Your task to perform on an android device: Open privacy settings Image 0: 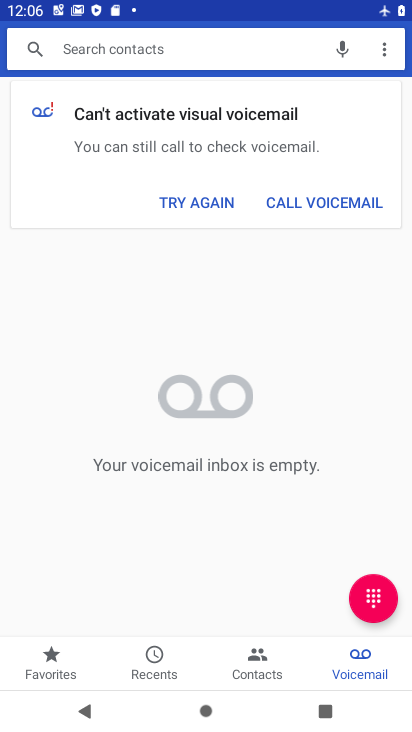
Step 0: press home button
Your task to perform on an android device: Open privacy settings Image 1: 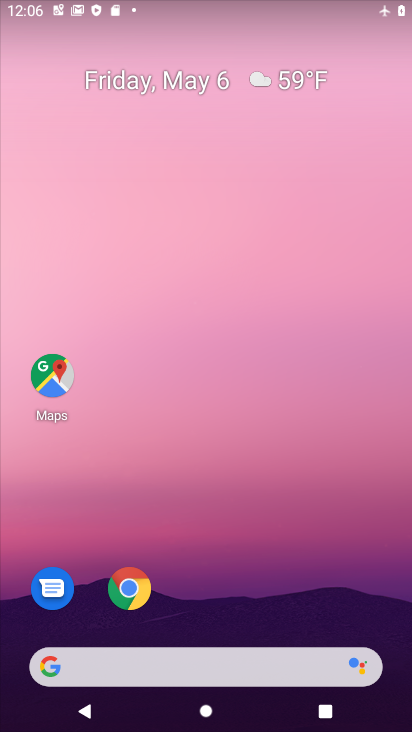
Step 1: drag from (187, 673) to (322, 145)
Your task to perform on an android device: Open privacy settings Image 2: 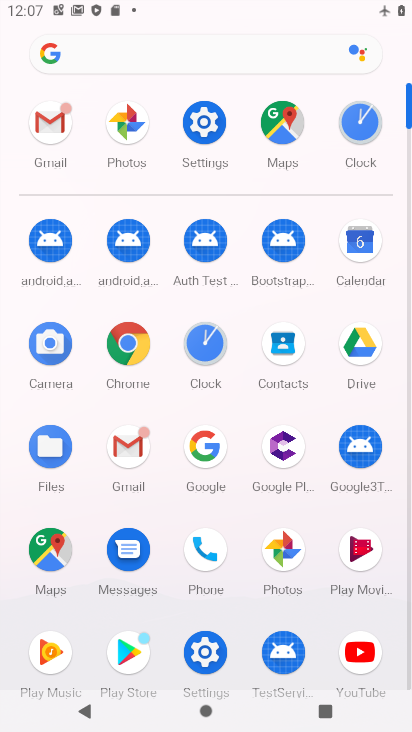
Step 2: click (205, 123)
Your task to perform on an android device: Open privacy settings Image 3: 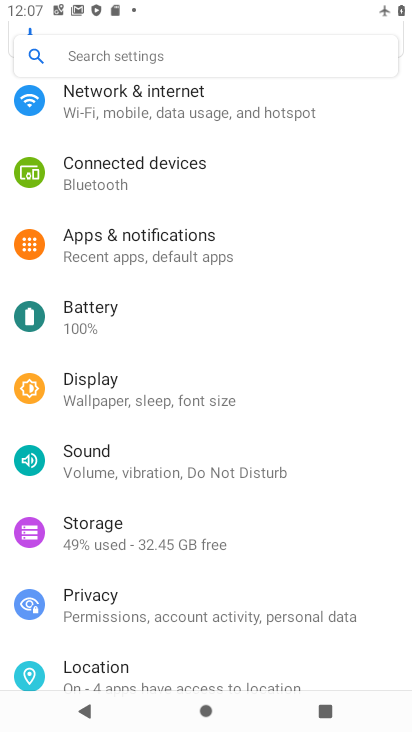
Step 3: click (117, 615)
Your task to perform on an android device: Open privacy settings Image 4: 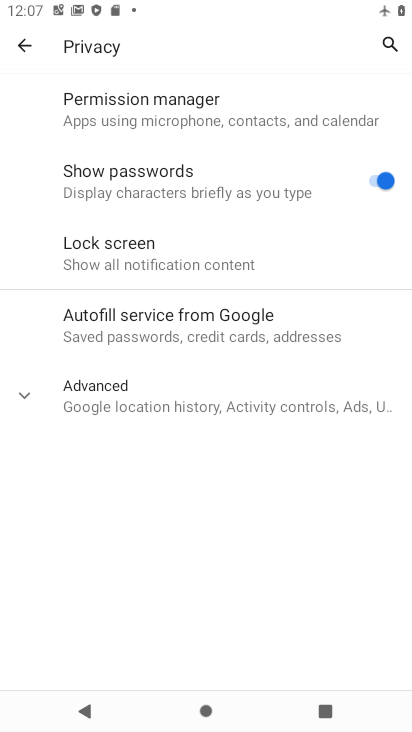
Step 4: task complete